Your task to perform on an android device: turn off location Image 0: 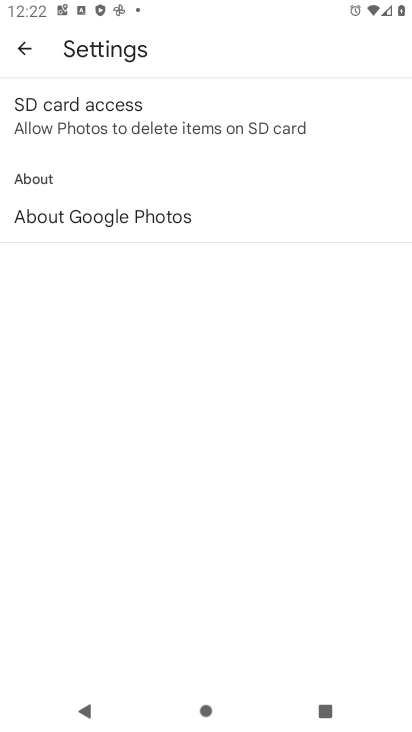
Step 0: press home button
Your task to perform on an android device: turn off location Image 1: 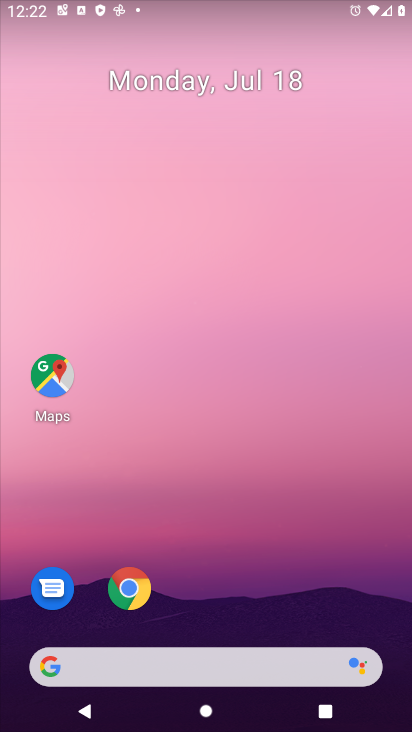
Step 1: drag from (234, 629) to (194, 205)
Your task to perform on an android device: turn off location Image 2: 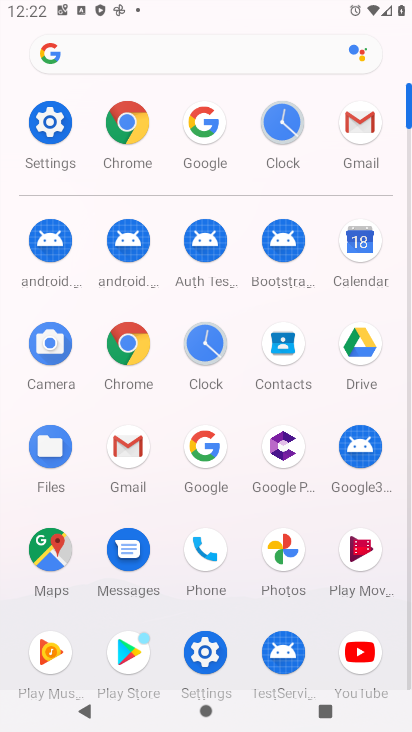
Step 2: click (64, 134)
Your task to perform on an android device: turn off location Image 3: 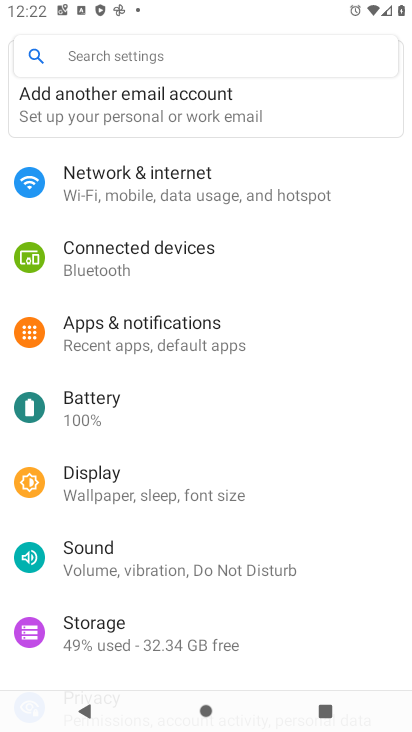
Step 3: drag from (149, 523) to (178, 344)
Your task to perform on an android device: turn off location Image 4: 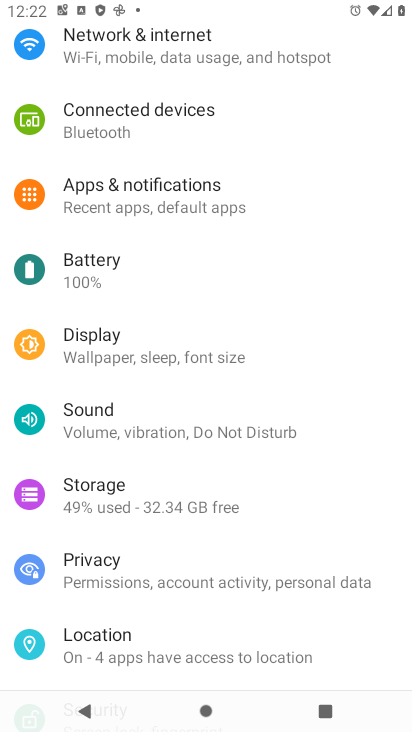
Step 4: click (136, 644)
Your task to perform on an android device: turn off location Image 5: 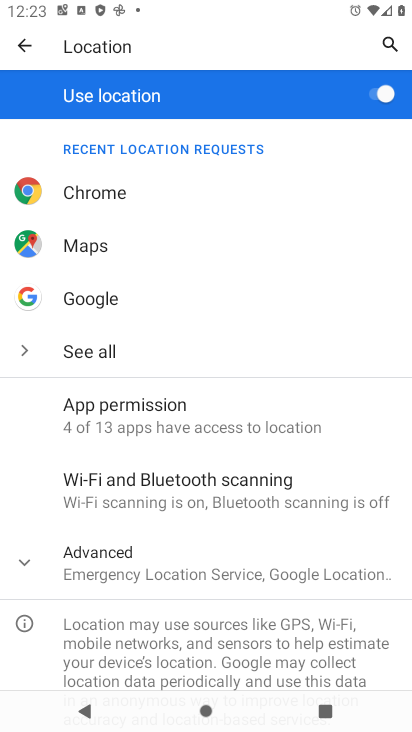
Step 5: click (204, 111)
Your task to perform on an android device: turn off location Image 6: 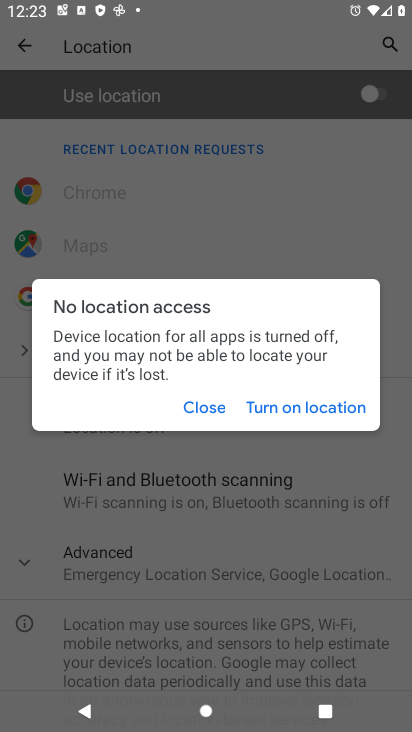
Step 6: click (203, 411)
Your task to perform on an android device: turn off location Image 7: 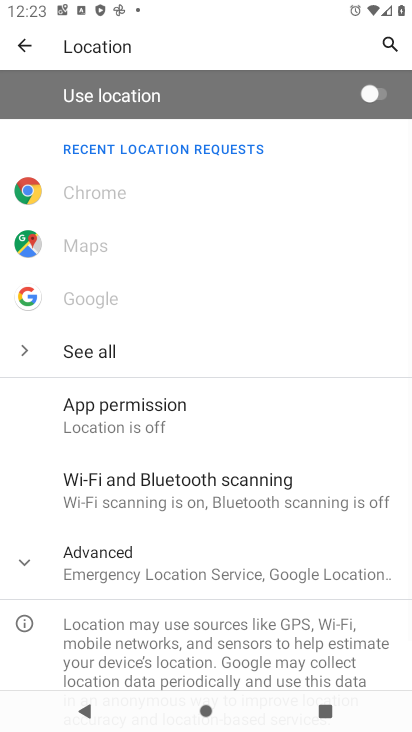
Step 7: task complete